Your task to perform on an android device: Open settings on Google Maps Image 0: 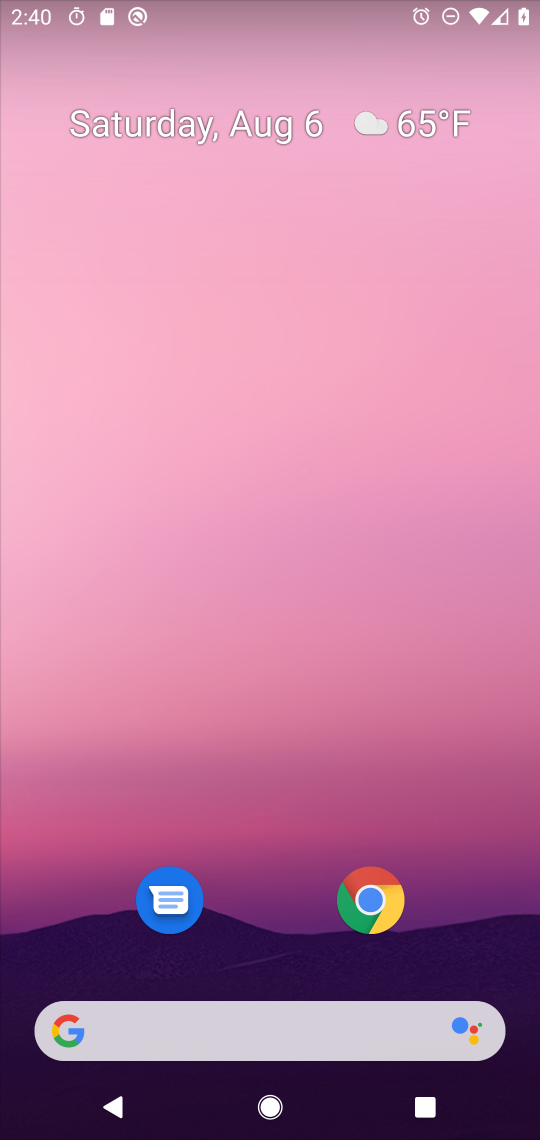
Step 0: drag from (261, 968) to (249, 273)
Your task to perform on an android device: Open settings on Google Maps Image 1: 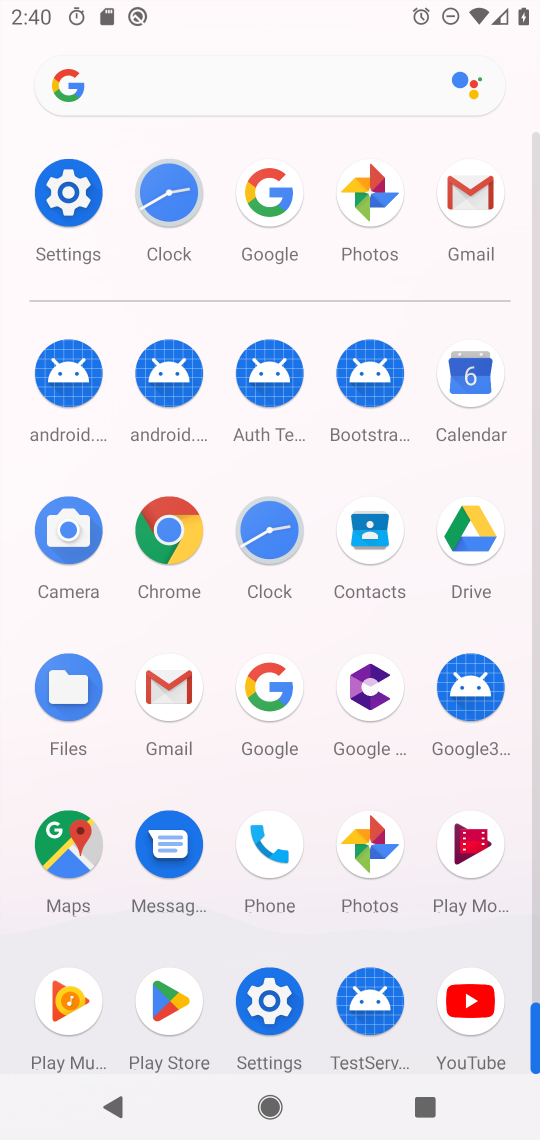
Step 1: click (61, 854)
Your task to perform on an android device: Open settings on Google Maps Image 2: 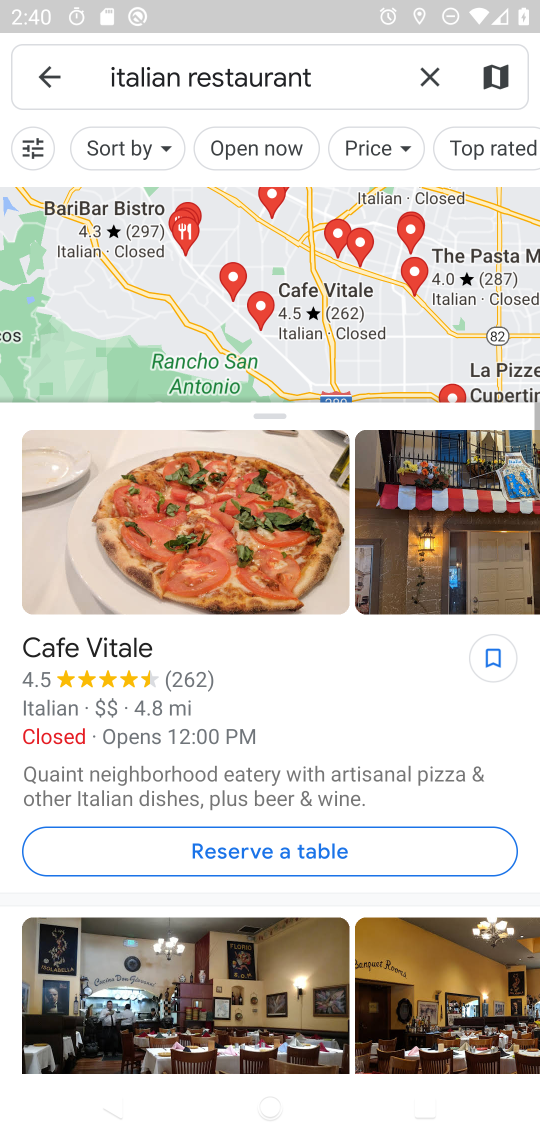
Step 2: click (50, 80)
Your task to perform on an android device: Open settings on Google Maps Image 3: 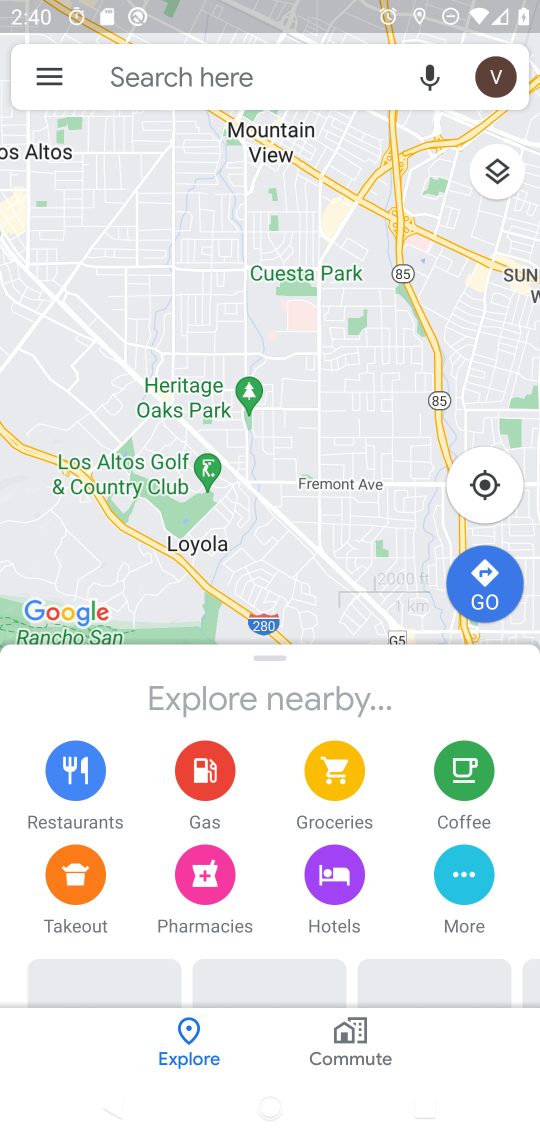
Step 3: click (51, 84)
Your task to perform on an android device: Open settings on Google Maps Image 4: 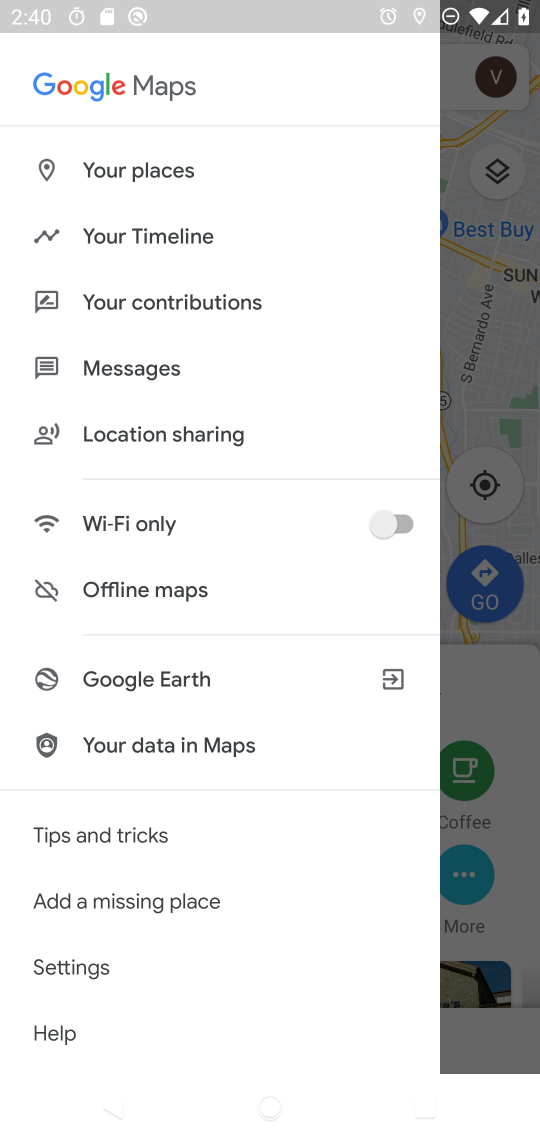
Step 4: click (75, 964)
Your task to perform on an android device: Open settings on Google Maps Image 5: 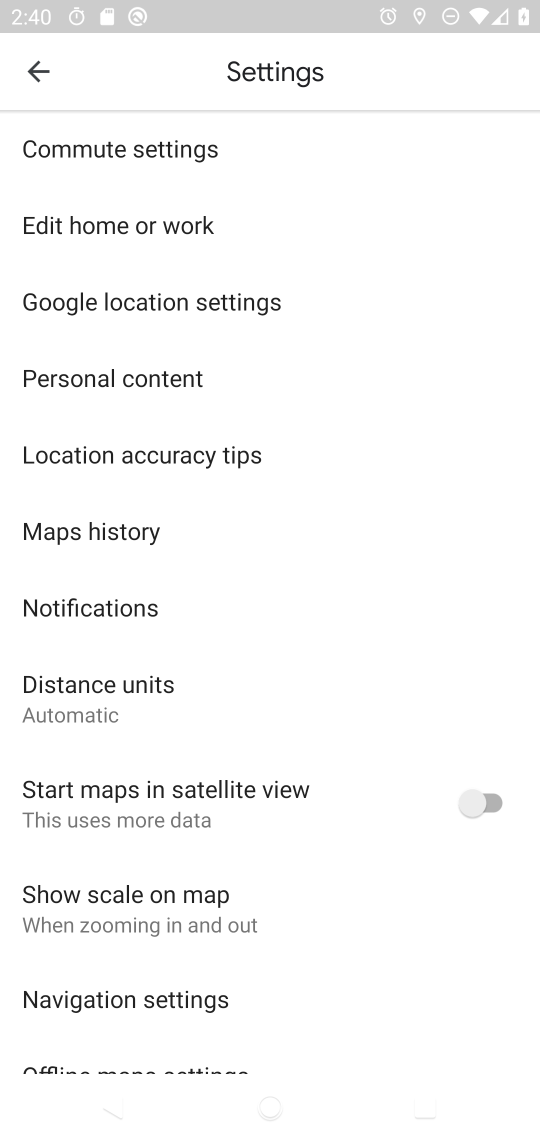
Step 5: task complete